Your task to perform on an android device: Open calendar and show me the second week of next month Image 0: 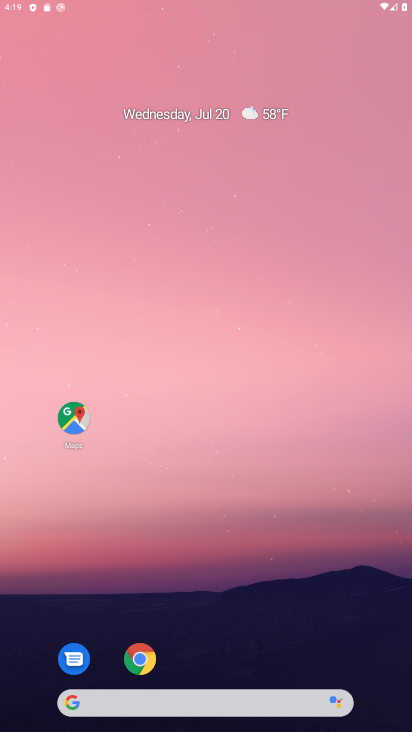
Step 0: click (260, 151)
Your task to perform on an android device: Open calendar and show me the second week of next month Image 1: 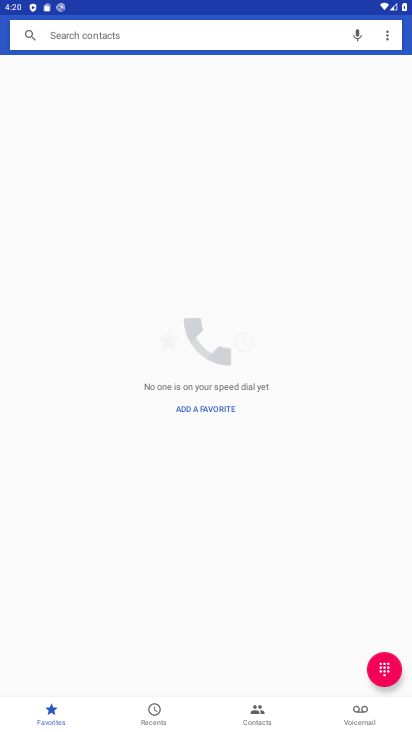
Step 1: press home button
Your task to perform on an android device: Open calendar and show me the second week of next month Image 2: 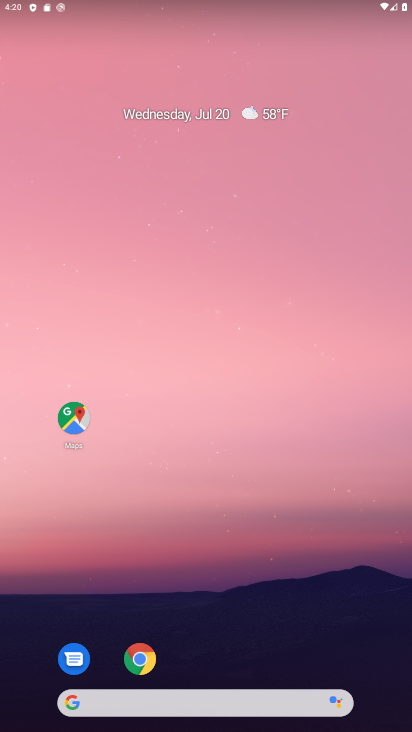
Step 2: drag from (261, 659) to (338, 143)
Your task to perform on an android device: Open calendar and show me the second week of next month Image 3: 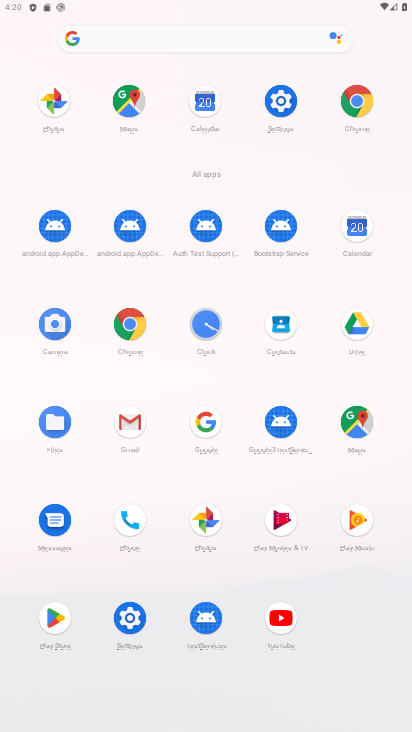
Step 3: click (361, 228)
Your task to perform on an android device: Open calendar and show me the second week of next month Image 4: 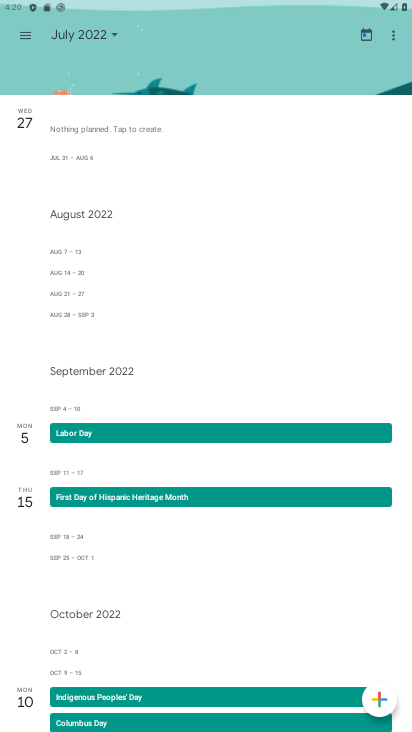
Step 4: click (111, 30)
Your task to perform on an android device: Open calendar and show me the second week of next month Image 5: 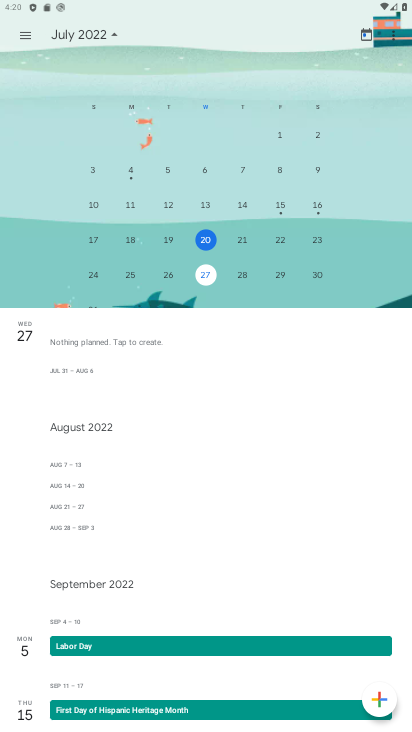
Step 5: drag from (307, 222) to (80, 184)
Your task to perform on an android device: Open calendar and show me the second week of next month Image 6: 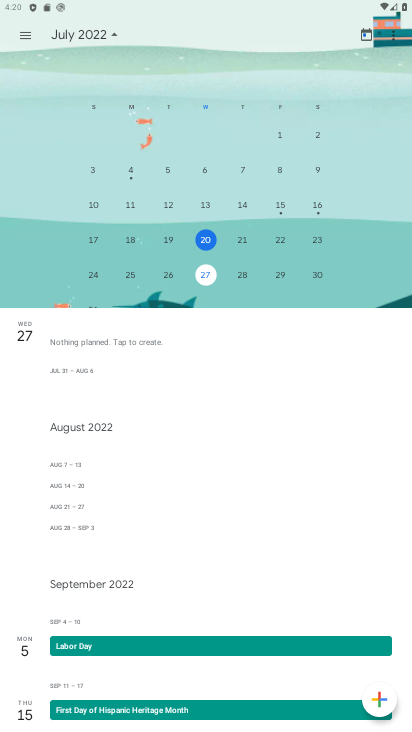
Step 6: click (210, 169)
Your task to perform on an android device: Open calendar and show me the second week of next month Image 7: 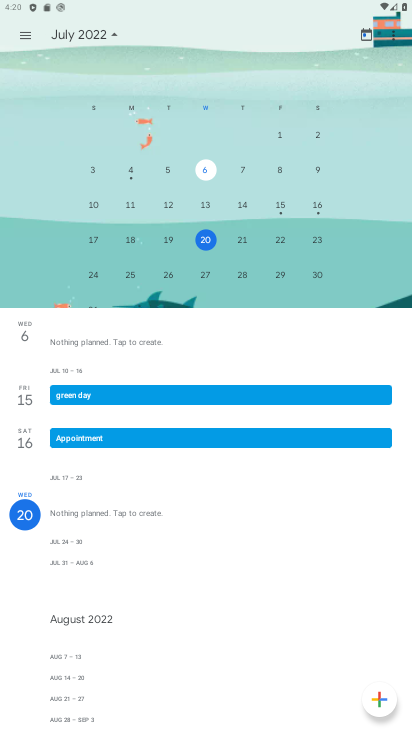
Step 7: drag from (344, 207) to (22, 149)
Your task to perform on an android device: Open calendar and show me the second week of next month Image 8: 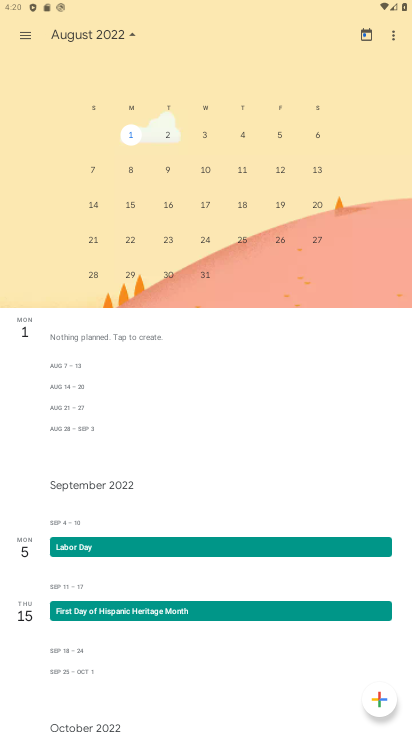
Step 8: click (200, 166)
Your task to perform on an android device: Open calendar and show me the second week of next month Image 9: 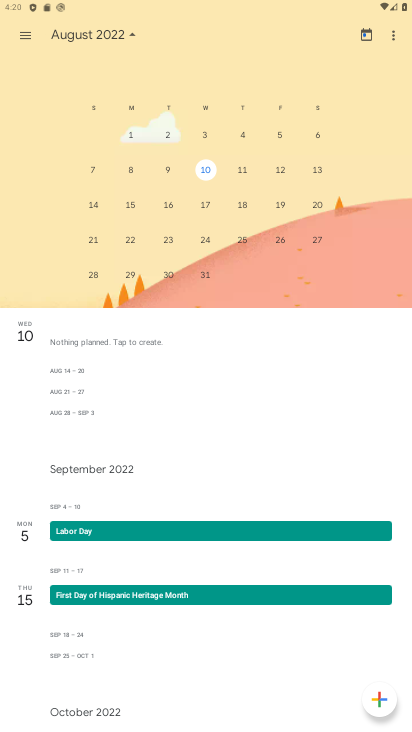
Step 9: task complete